Your task to perform on an android device: change timer sound Image 0: 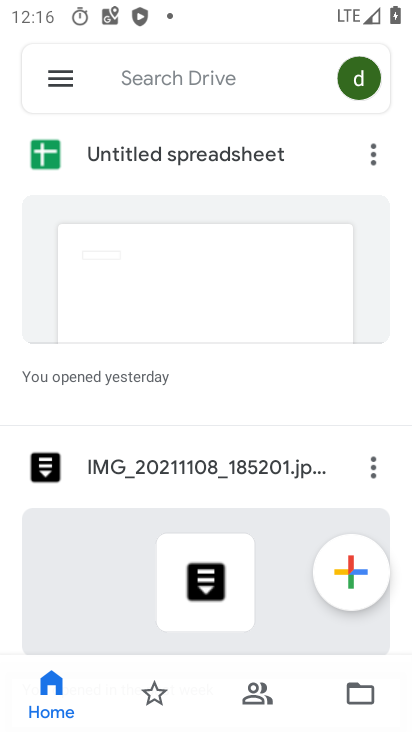
Step 0: press back button
Your task to perform on an android device: change timer sound Image 1: 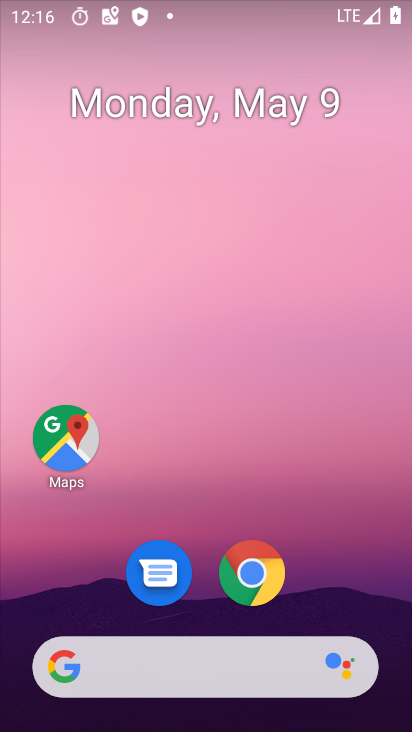
Step 1: drag from (338, 582) to (244, 42)
Your task to perform on an android device: change timer sound Image 2: 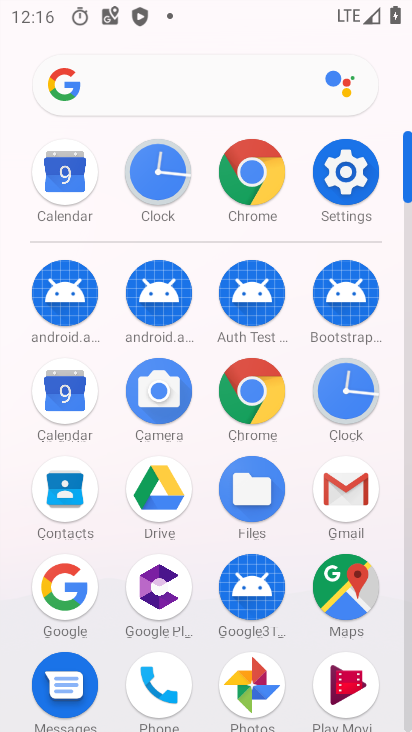
Step 2: click (346, 393)
Your task to perform on an android device: change timer sound Image 3: 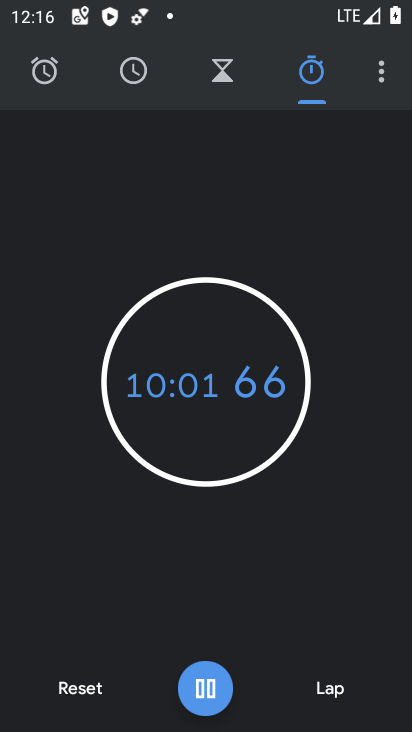
Step 3: drag from (377, 74) to (293, 146)
Your task to perform on an android device: change timer sound Image 4: 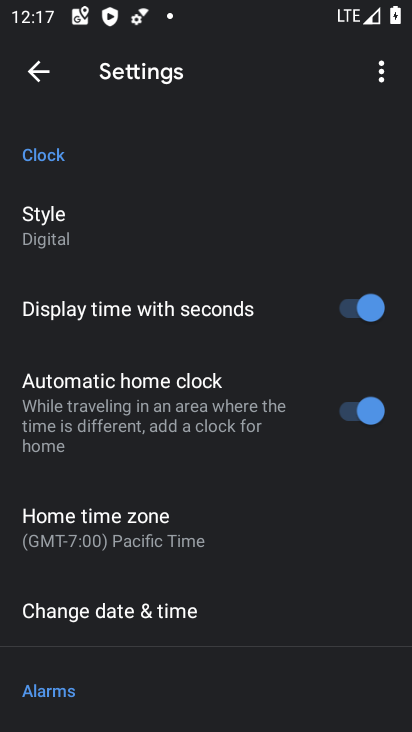
Step 4: drag from (219, 556) to (243, 158)
Your task to perform on an android device: change timer sound Image 5: 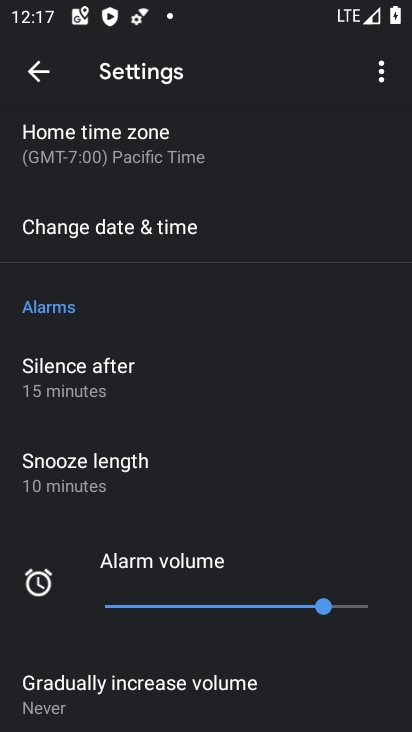
Step 5: drag from (185, 510) to (228, 137)
Your task to perform on an android device: change timer sound Image 6: 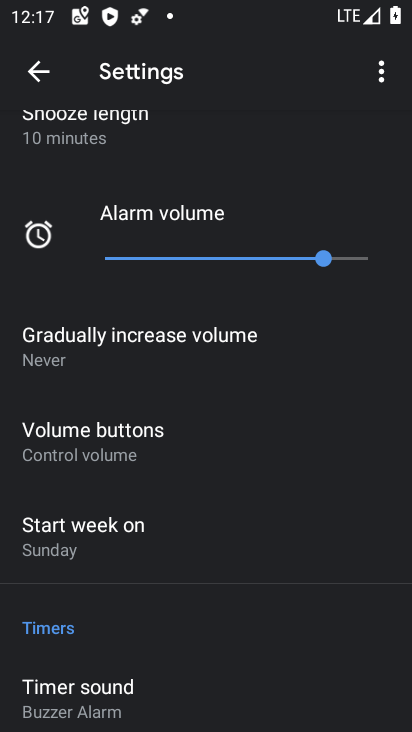
Step 6: drag from (209, 672) to (213, 270)
Your task to perform on an android device: change timer sound Image 7: 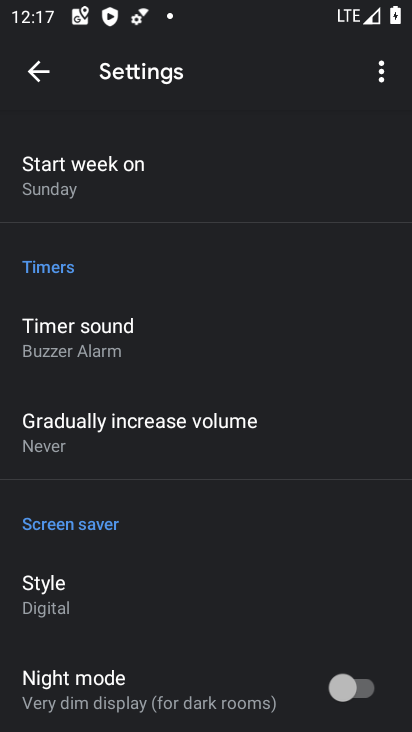
Step 7: click (117, 336)
Your task to perform on an android device: change timer sound Image 8: 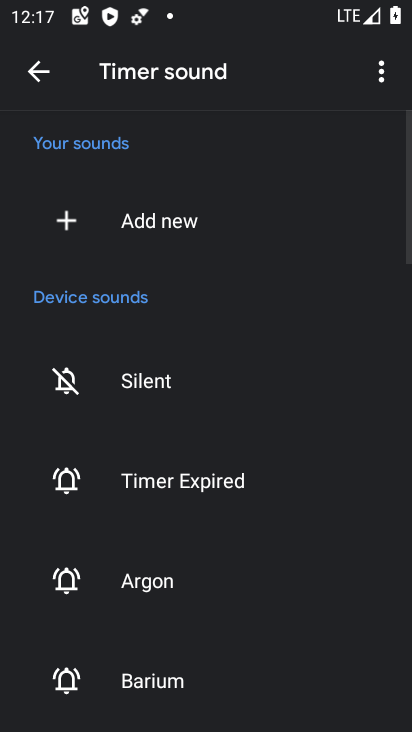
Step 8: click (168, 676)
Your task to perform on an android device: change timer sound Image 9: 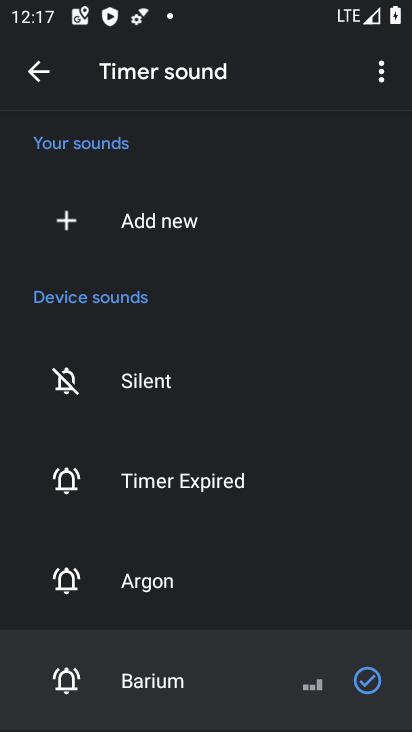
Step 9: task complete